Your task to perform on an android device: add a label to a message in the gmail app Image 0: 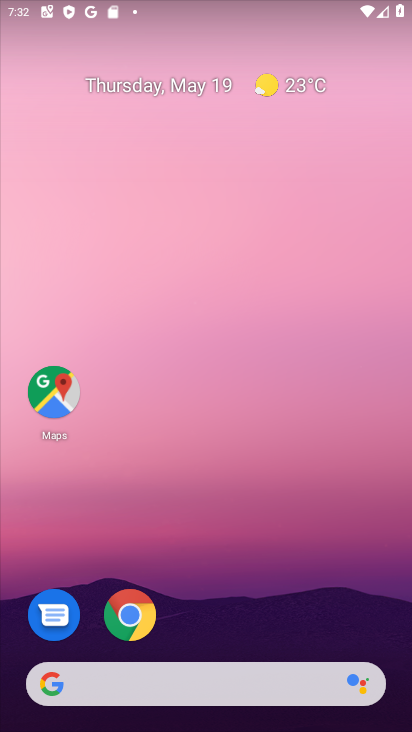
Step 0: drag from (385, 627) to (301, 2)
Your task to perform on an android device: add a label to a message in the gmail app Image 1: 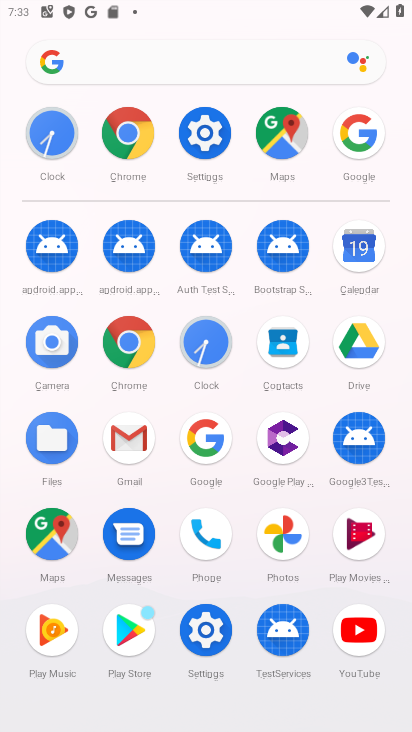
Step 1: click (127, 440)
Your task to perform on an android device: add a label to a message in the gmail app Image 2: 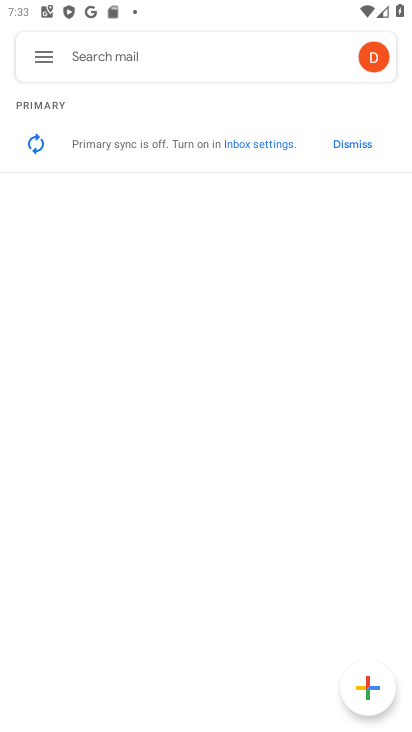
Step 2: task complete